Your task to perform on an android device: Turn on the flashlight Image 0: 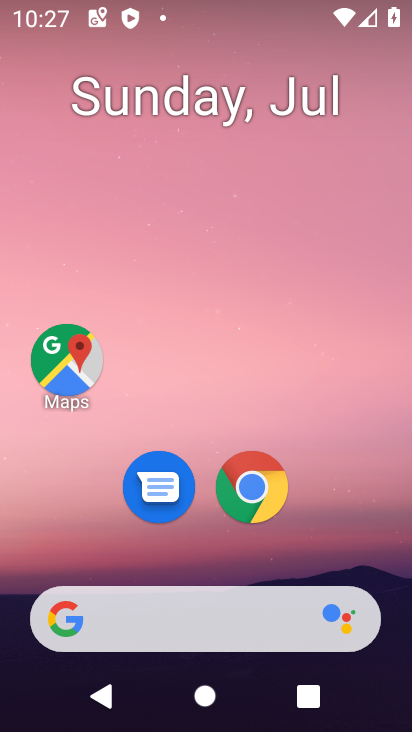
Step 0: drag from (151, 548) to (231, 9)
Your task to perform on an android device: Turn on the flashlight Image 1: 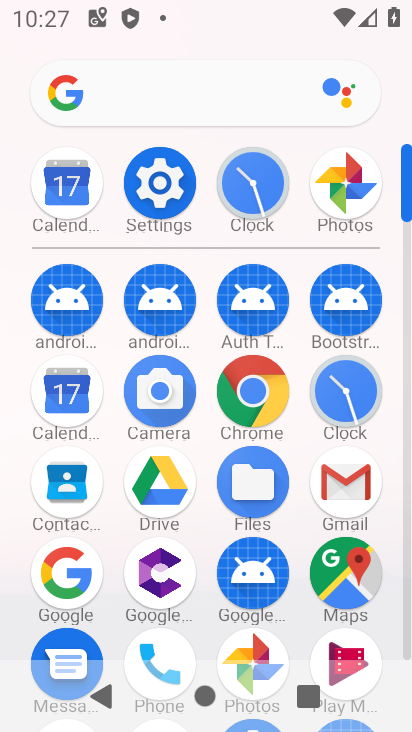
Step 1: click (173, 200)
Your task to perform on an android device: Turn on the flashlight Image 2: 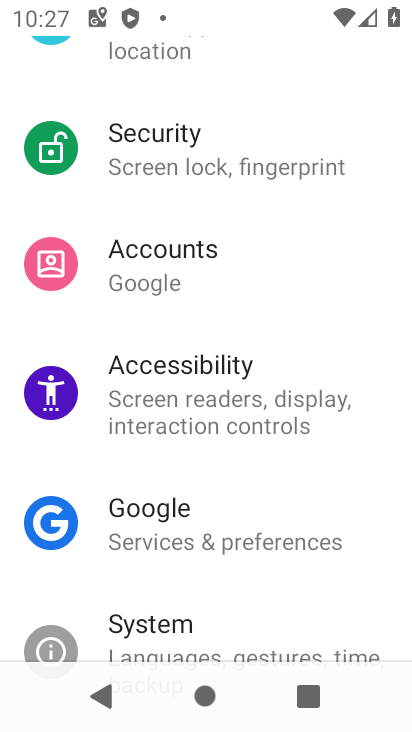
Step 2: drag from (199, 111) to (199, 679)
Your task to perform on an android device: Turn on the flashlight Image 3: 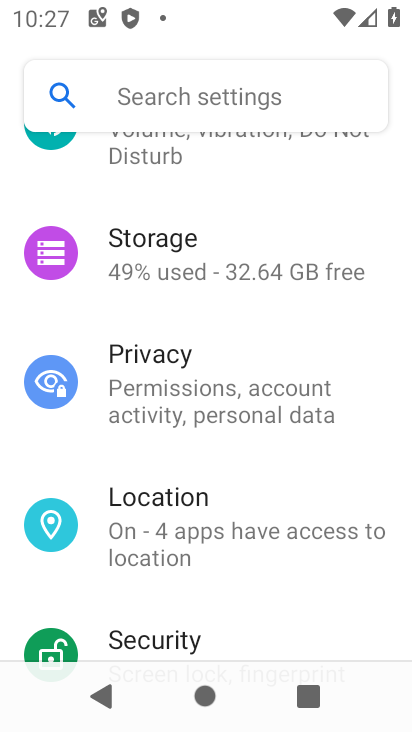
Step 3: click (190, 98)
Your task to perform on an android device: Turn on the flashlight Image 4: 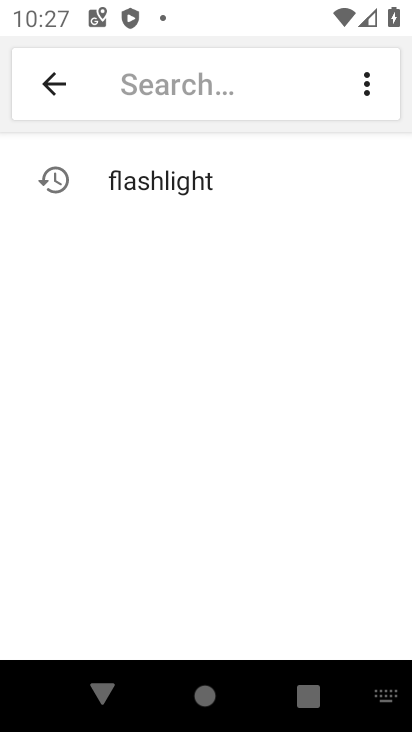
Step 4: type "flashlight"
Your task to perform on an android device: Turn on the flashlight Image 5: 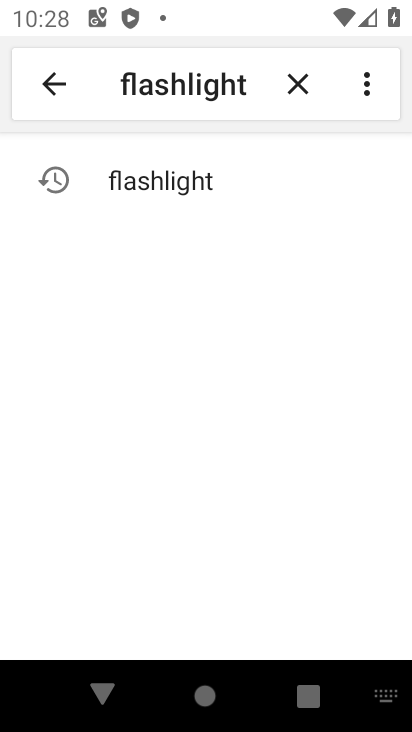
Step 5: click (128, 144)
Your task to perform on an android device: Turn on the flashlight Image 6: 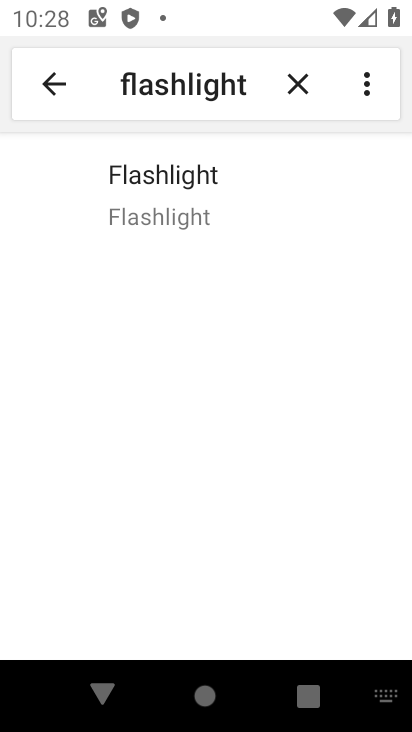
Step 6: click (179, 195)
Your task to perform on an android device: Turn on the flashlight Image 7: 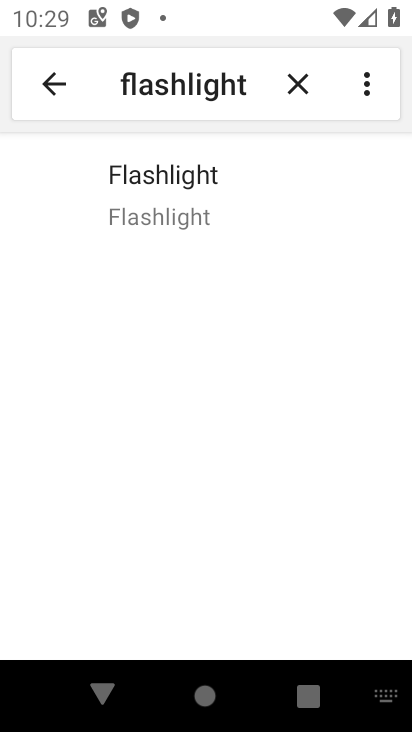
Step 7: click (153, 189)
Your task to perform on an android device: Turn on the flashlight Image 8: 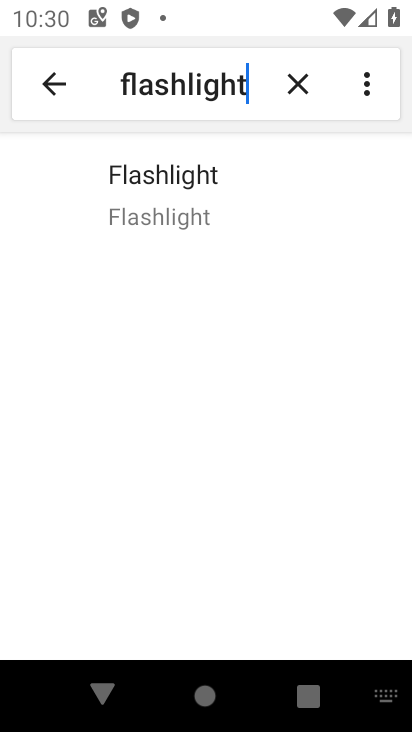
Step 8: click (216, 198)
Your task to perform on an android device: Turn on the flashlight Image 9: 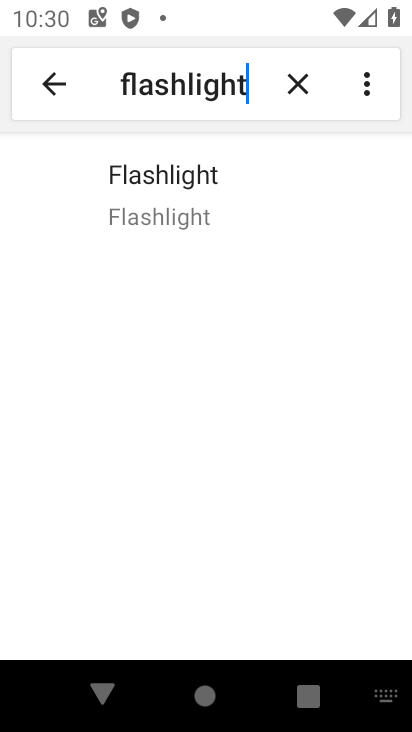
Step 9: task complete